Your task to perform on an android device: change alarm snooze length Image 0: 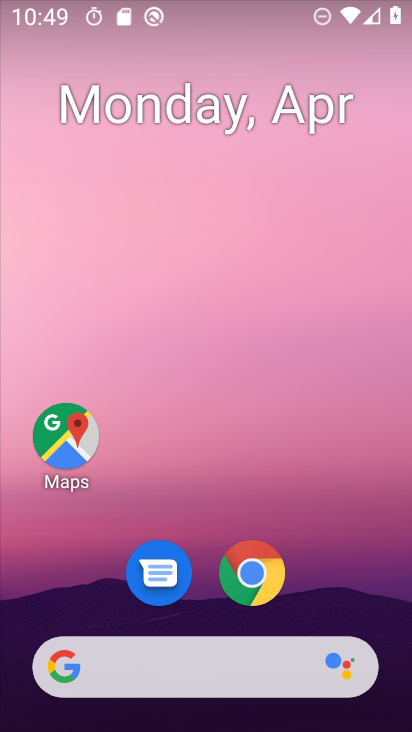
Step 0: drag from (396, 529) to (1, 1)
Your task to perform on an android device: change alarm snooze length Image 1: 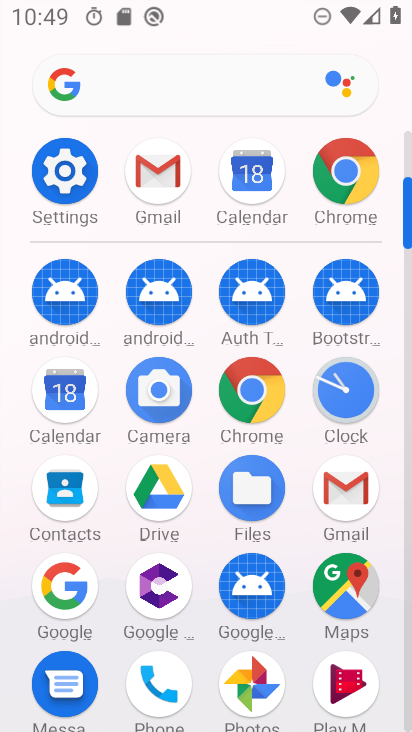
Step 1: drag from (372, 571) to (290, 118)
Your task to perform on an android device: change alarm snooze length Image 2: 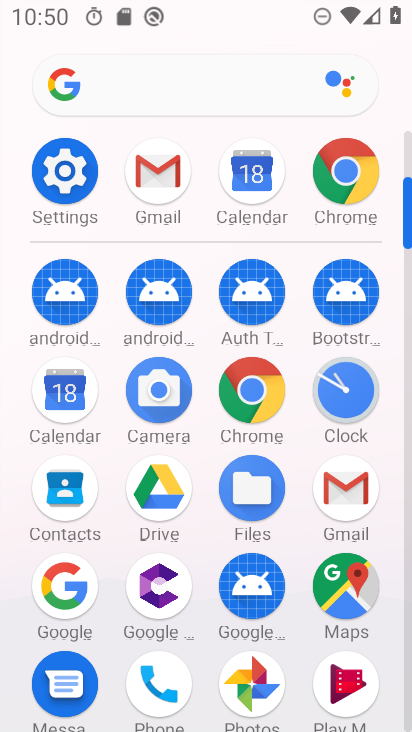
Step 2: click (342, 392)
Your task to perform on an android device: change alarm snooze length Image 3: 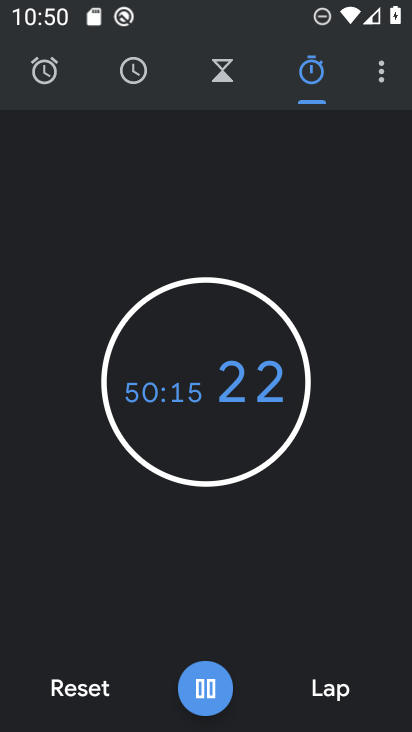
Step 3: click (400, 74)
Your task to perform on an android device: change alarm snooze length Image 4: 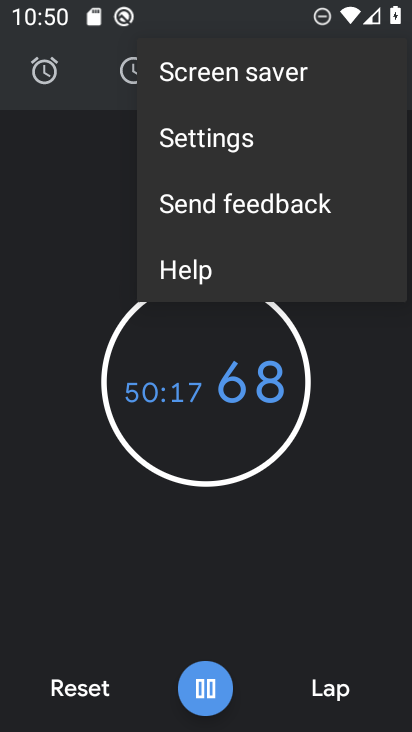
Step 4: click (262, 142)
Your task to perform on an android device: change alarm snooze length Image 5: 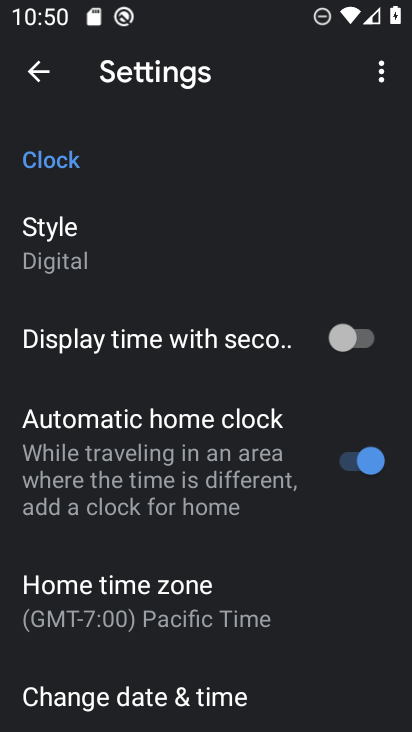
Step 5: drag from (155, 572) to (125, 309)
Your task to perform on an android device: change alarm snooze length Image 6: 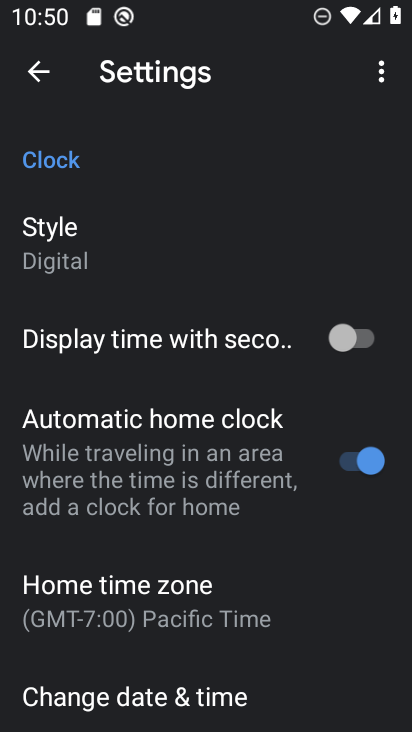
Step 6: drag from (131, 600) to (24, 185)
Your task to perform on an android device: change alarm snooze length Image 7: 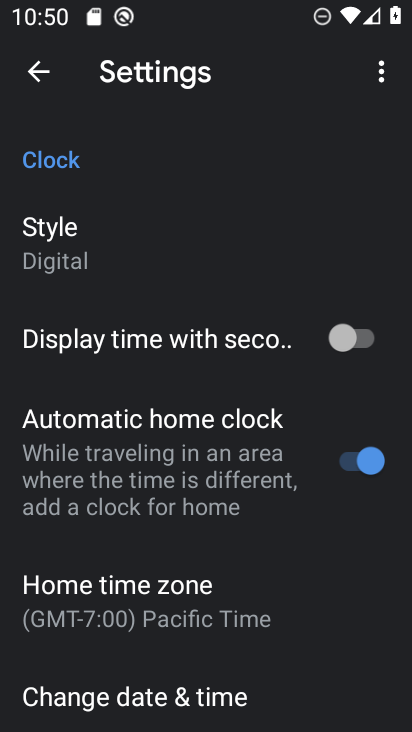
Step 7: drag from (188, 578) to (107, 31)
Your task to perform on an android device: change alarm snooze length Image 8: 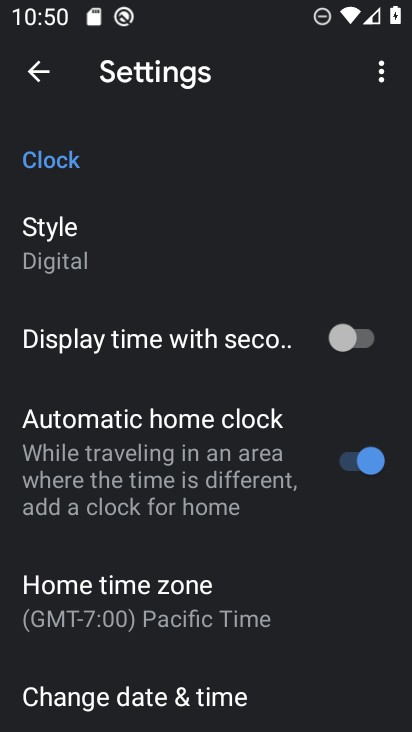
Step 8: drag from (235, 701) to (155, 246)
Your task to perform on an android device: change alarm snooze length Image 9: 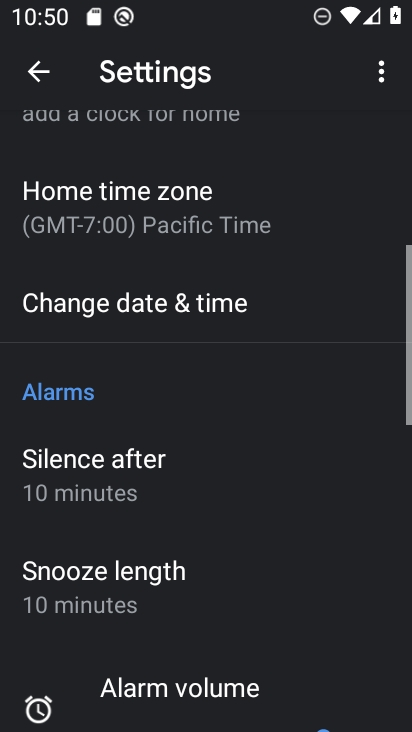
Step 9: drag from (170, 471) to (100, 220)
Your task to perform on an android device: change alarm snooze length Image 10: 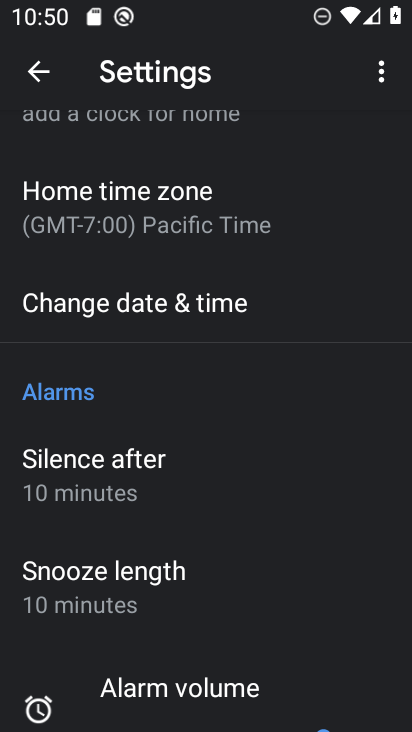
Step 10: drag from (208, 559) to (176, 291)
Your task to perform on an android device: change alarm snooze length Image 11: 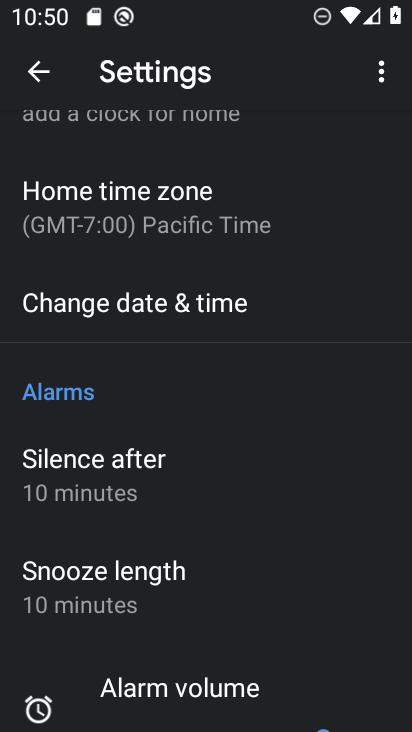
Step 11: click (150, 584)
Your task to perform on an android device: change alarm snooze length Image 12: 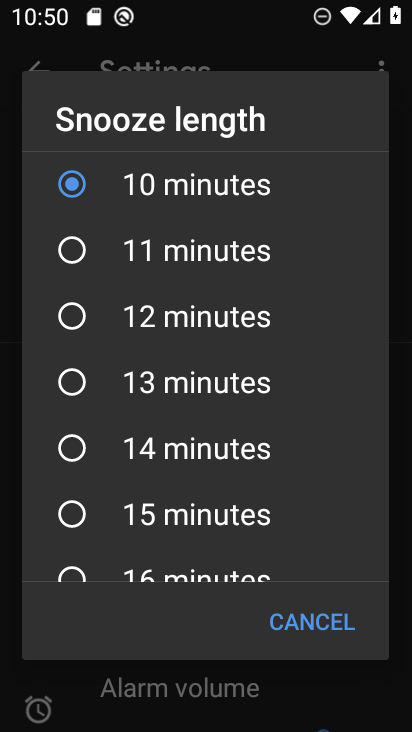
Step 12: click (61, 323)
Your task to perform on an android device: change alarm snooze length Image 13: 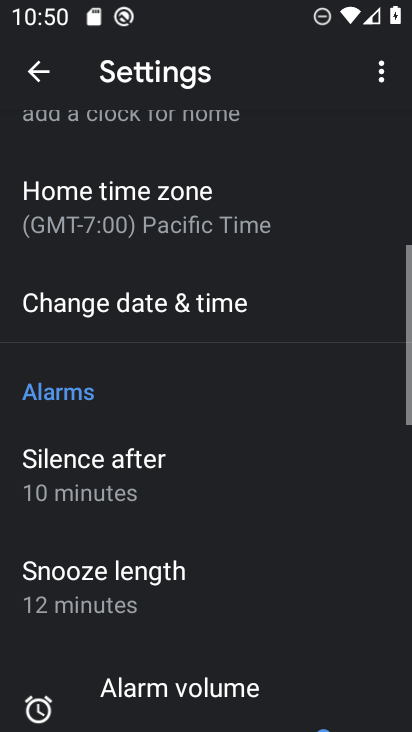
Step 13: task complete